Your task to perform on an android device: Open Google Maps Image 0: 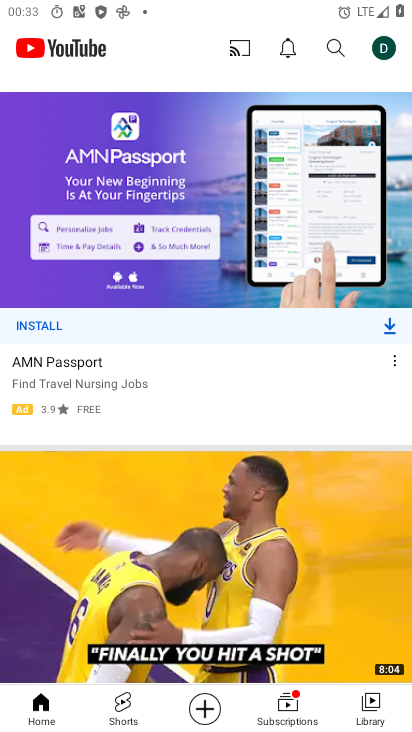
Step 0: press home button
Your task to perform on an android device: Open Google Maps Image 1: 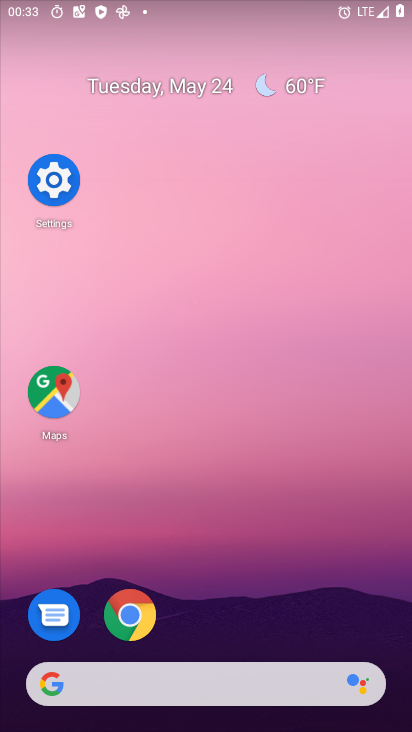
Step 1: click (58, 393)
Your task to perform on an android device: Open Google Maps Image 2: 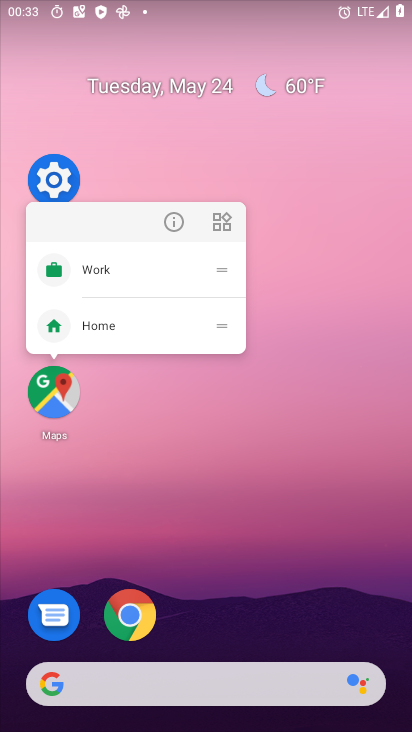
Step 2: click (58, 393)
Your task to perform on an android device: Open Google Maps Image 3: 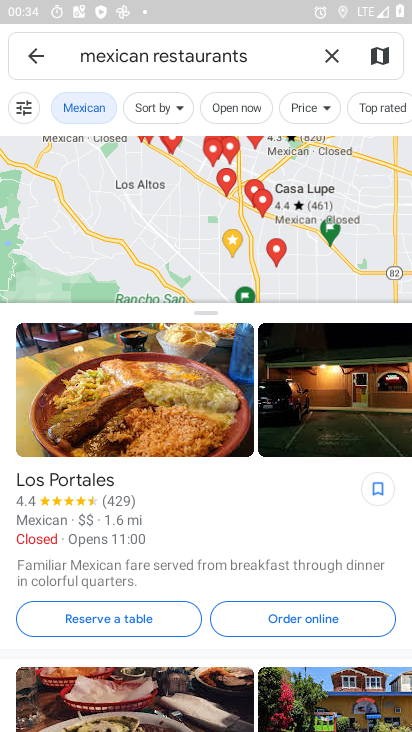
Step 3: task complete